Your task to perform on an android device: toggle sleep mode Image 0: 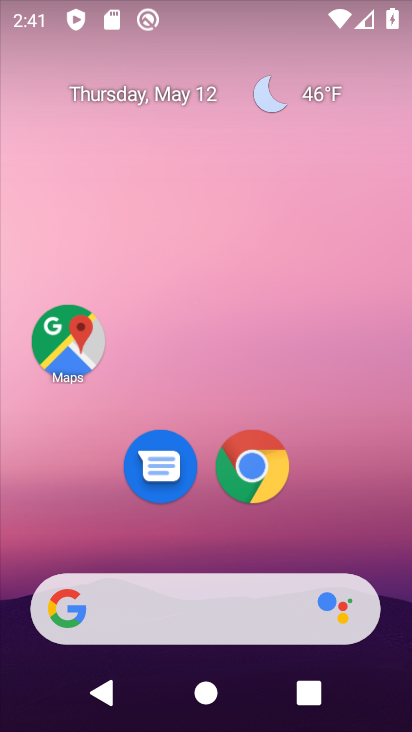
Step 0: drag from (359, 555) to (265, 33)
Your task to perform on an android device: toggle sleep mode Image 1: 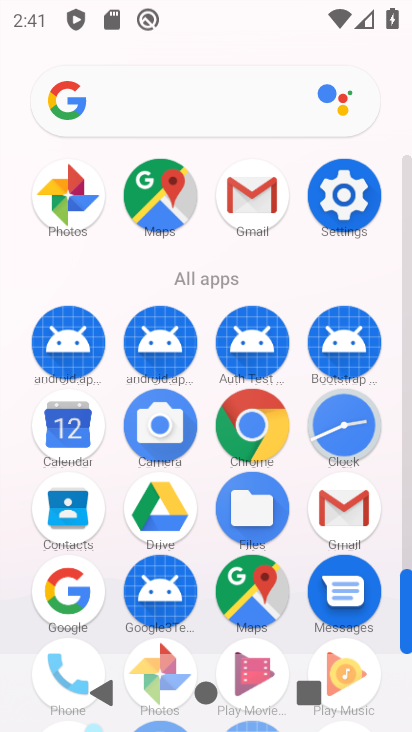
Step 1: drag from (12, 485) to (2, 196)
Your task to perform on an android device: toggle sleep mode Image 2: 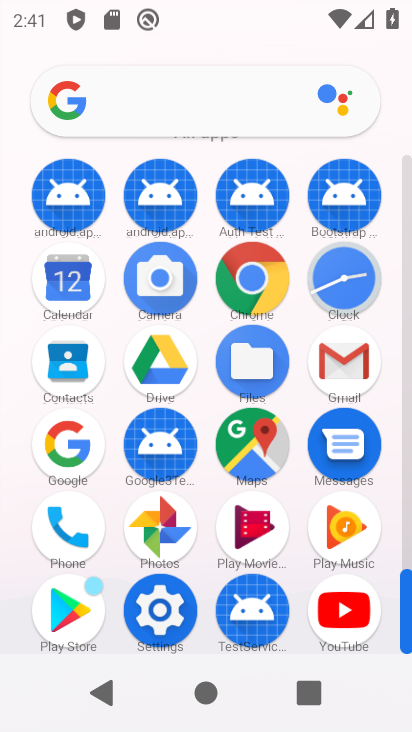
Step 2: click (159, 607)
Your task to perform on an android device: toggle sleep mode Image 3: 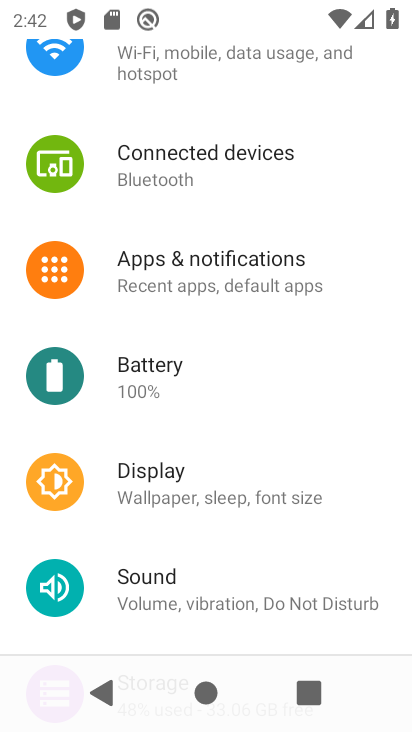
Step 3: drag from (259, 176) to (248, 519)
Your task to perform on an android device: toggle sleep mode Image 4: 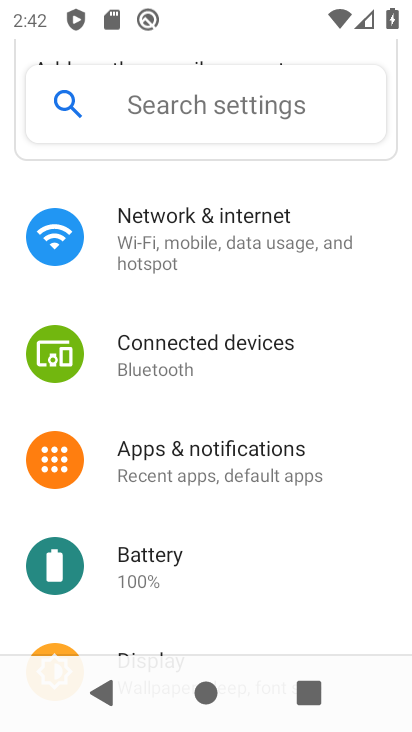
Step 4: click (221, 257)
Your task to perform on an android device: toggle sleep mode Image 5: 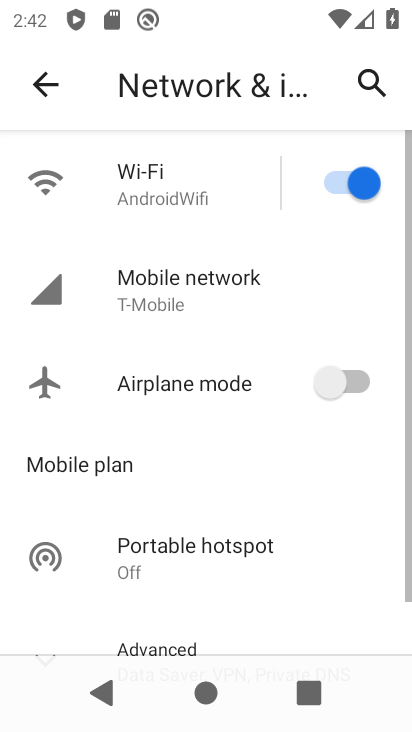
Step 5: drag from (196, 561) to (177, 223)
Your task to perform on an android device: toggle sleep mode Image 6: 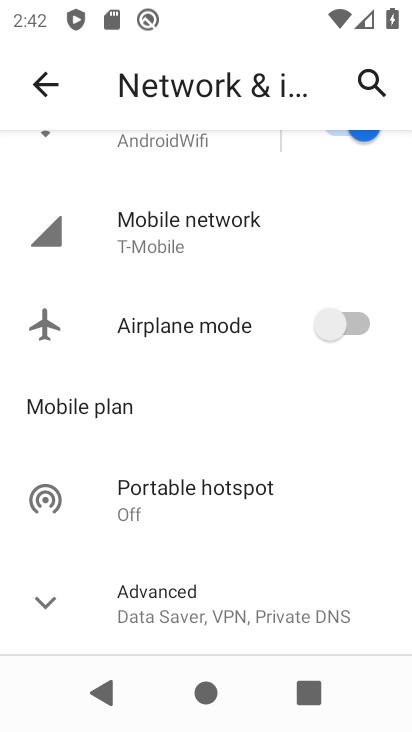
Step 6: click (42, 600)
Your task to perform on an android device: toggle sleep mode Image 7: 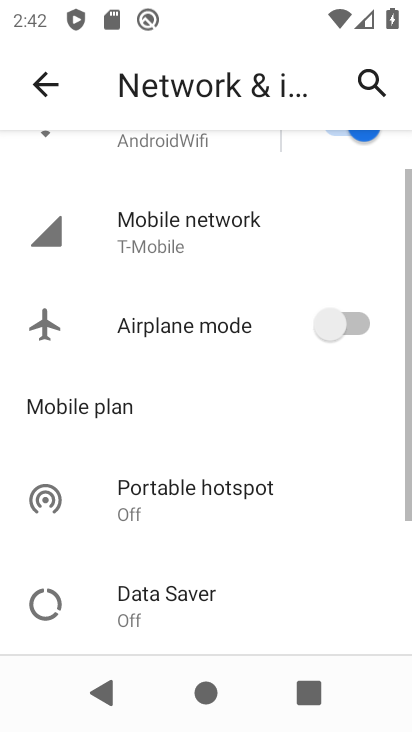
Step 7: drag from (253, 523) to (251, 157)
Your task to perform on an android device: toggle sleep mode Image 8: 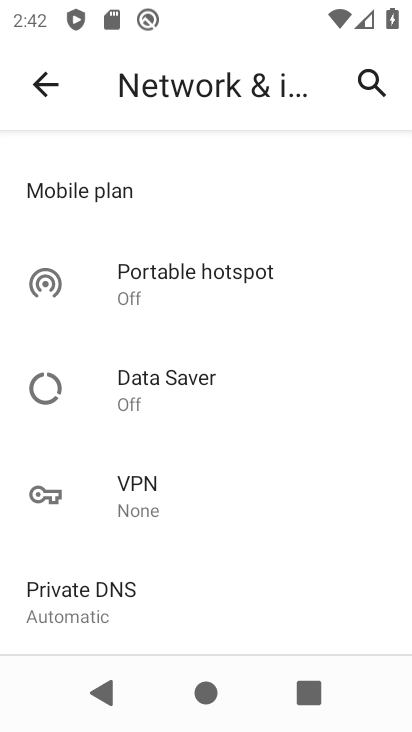
Step 8: drag from (228, 537) to (240, 258)
Your task to perform on an android device: toggle sleep mode Image 9: 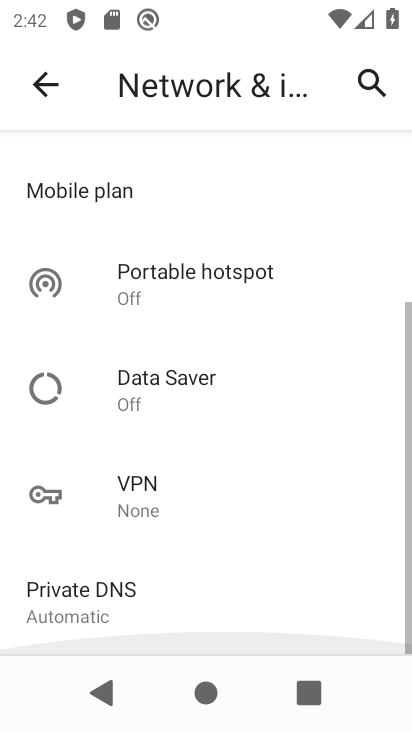
Step 9: drag from (232, 201) to (210, 639)
Your task to perform on an android device: toggle sleep mode Image 10: 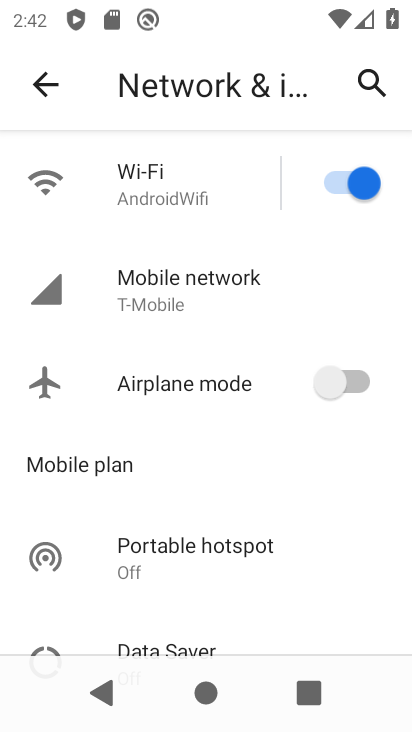
Step 10: click (48, 59)
Your task to perform on an android device: toggle sleep mode Image 11: 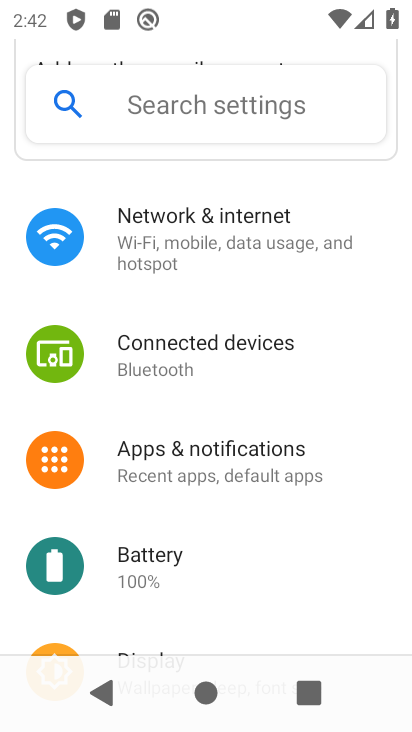
Step 11: drag from (235, 576) to (213, 261)
Your task to perform on an android device: toggle sleep mode Image 12: 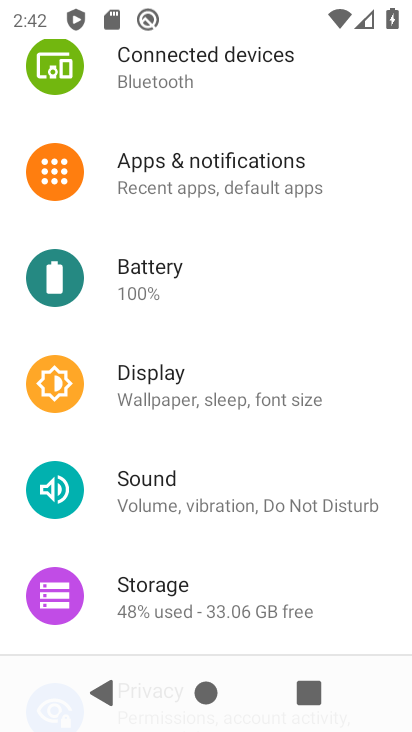
Step 12: click (156, 363)
Your task to perform on an android device: toggle sleep mode Image 13: 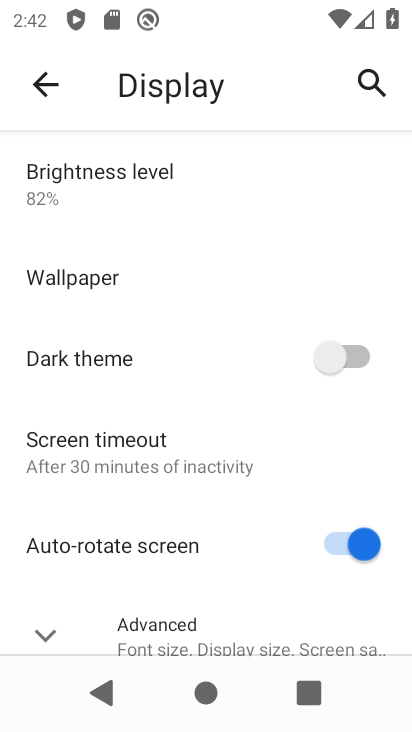
Step 13: click (44, 628)
Your task to perform on an android device: toggle sleep mode Image 14: 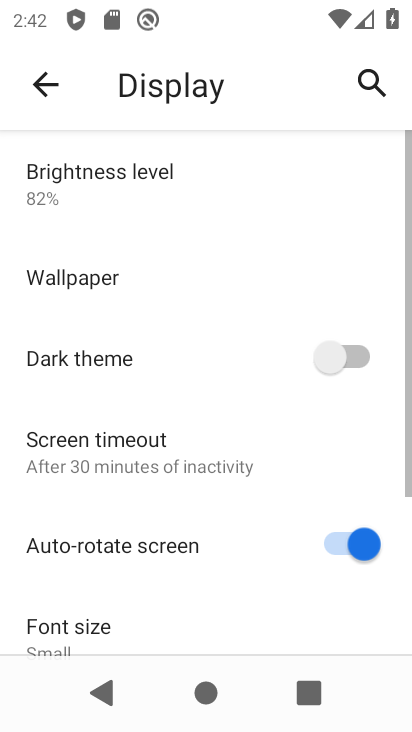
Step 14: task complete